Your task to perform on an android device: empty trash in the gmail app Image 0: 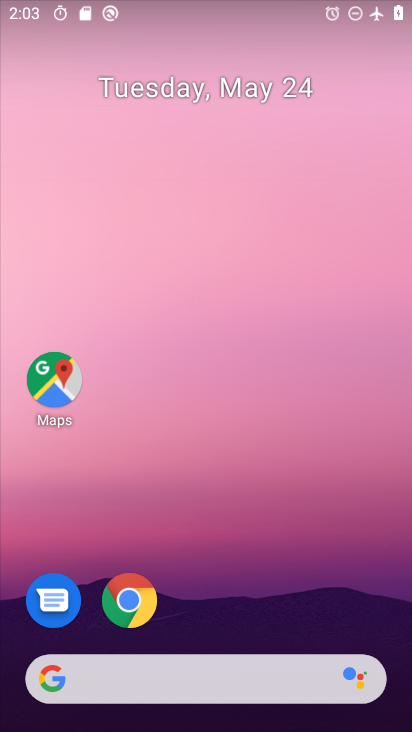
Step 0: drag from (290, 387) to (281, 103)
Your task to perform on an android device: empty trash in the gmail app Image 1: 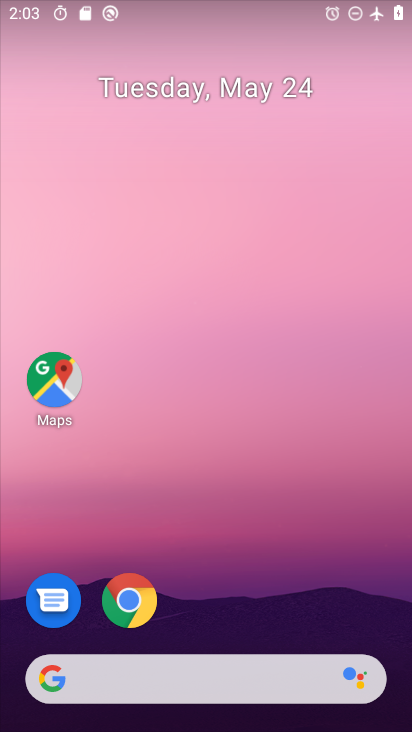
Step 1: drag from (317, 537) to (207, 109)
Your task to perform on an android device: empty trash in the gmail app Image 2: 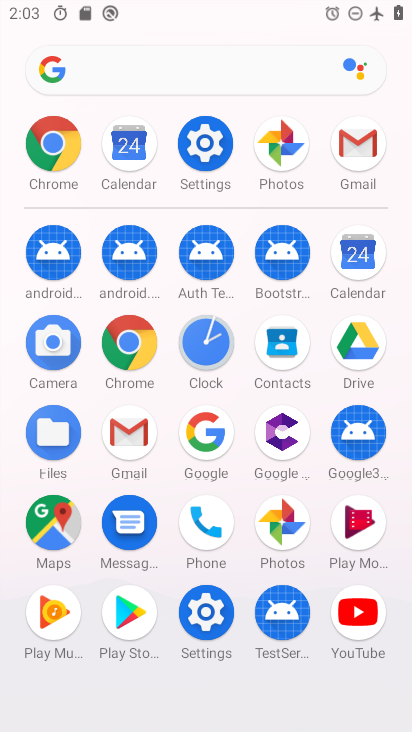
Step 2: click (362, 135)
Your task to perform on an android device: empty trash in the gmail app Image 3: 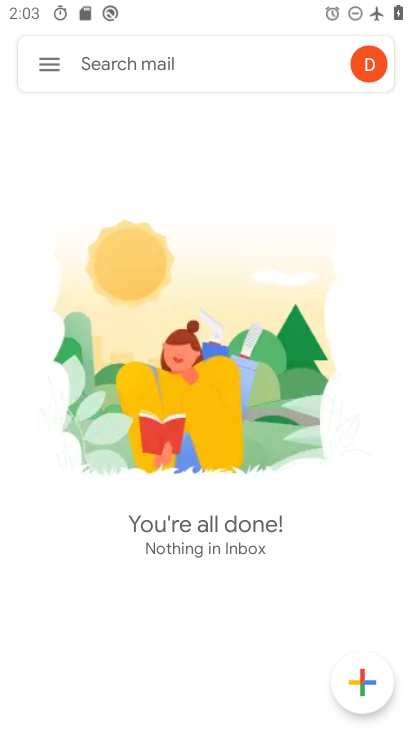
Step 3: click (46, 46)
Your task to perform on an android device: empty trash in the gmail app Image 4: 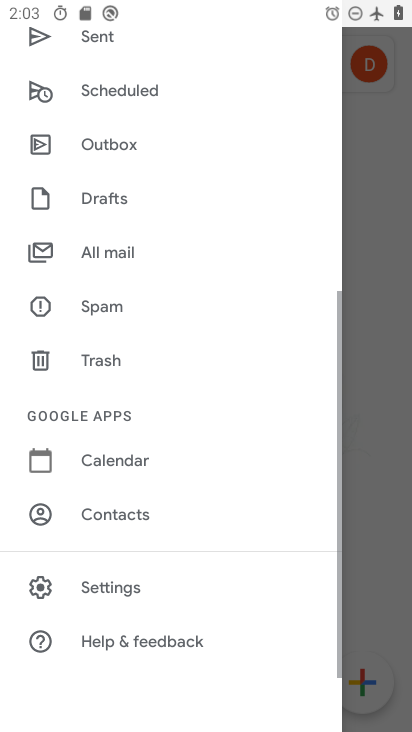
Step 4: click (104, 365)
Your task to perform on an android device: empty trash in the gmail app Image 5: 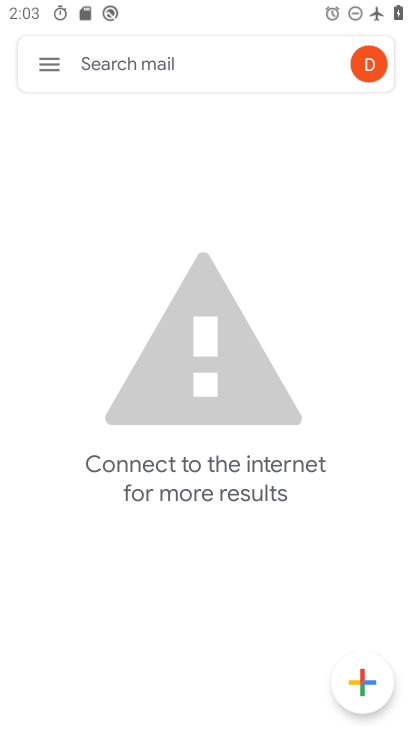
Step 5: task complete